Your task to perform on an android device: Open calendar and show me the first week of next month Image 0: 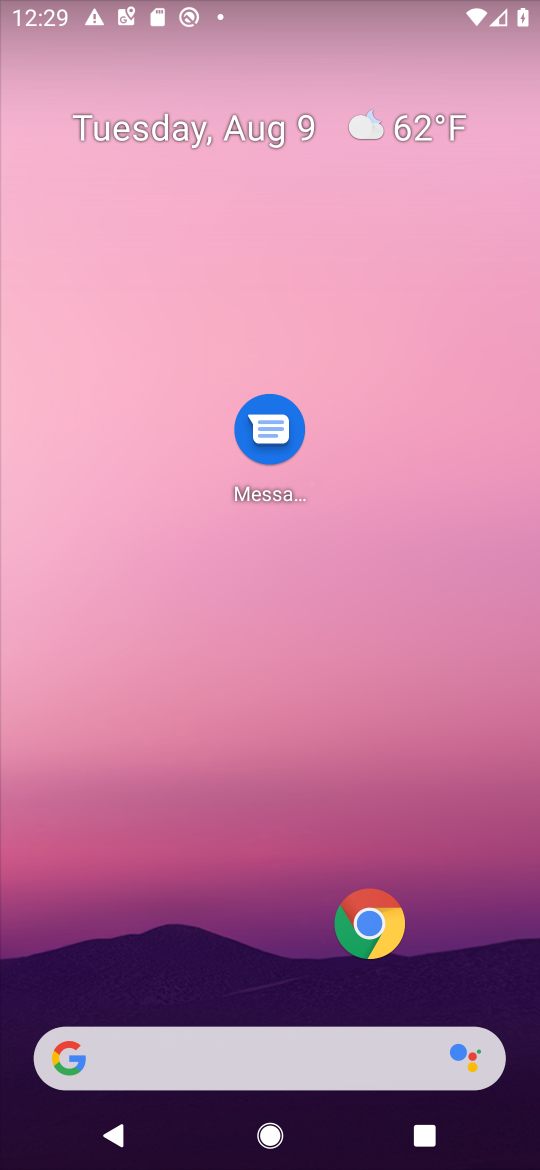
Step 0: click (404, 115)
Your task to perform on an android device: Open calendar and show me the first week of next month Image 1: 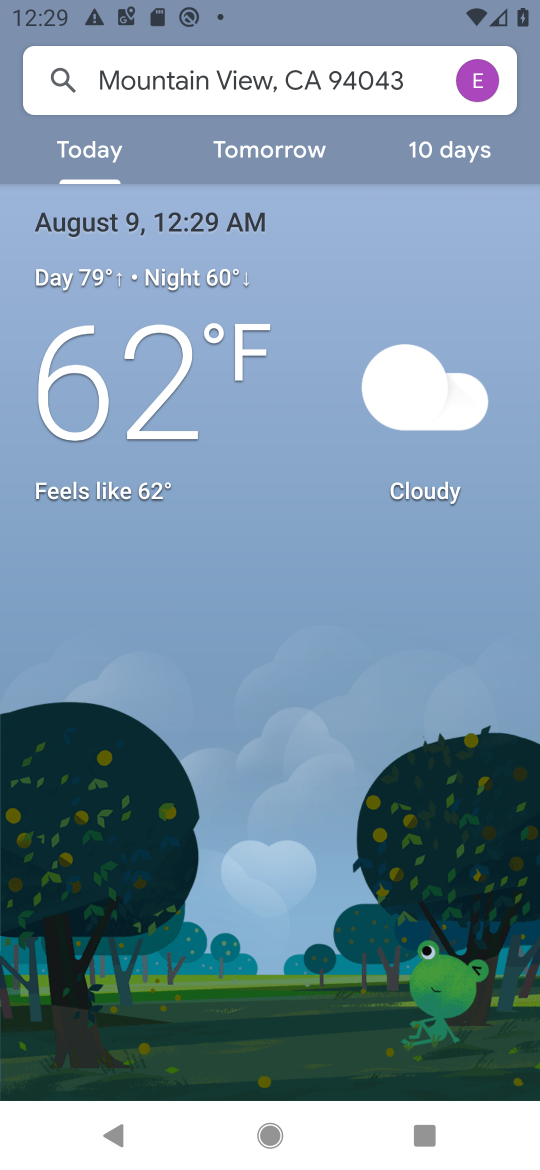
Step 1: press home button
Your task to perform on an android device: Open calendar and show me the first week of next month Image 2: 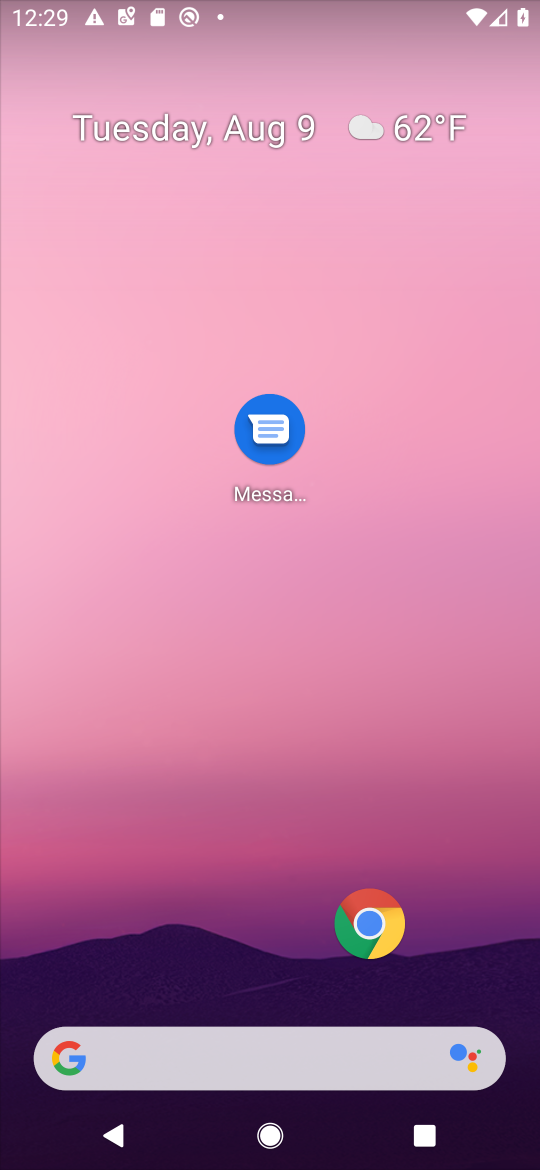
Step 2: drag from (66, 1141) to (532, 231)
Your task to perform on an android device: Open calendar and show me the first week of next month Image 3: 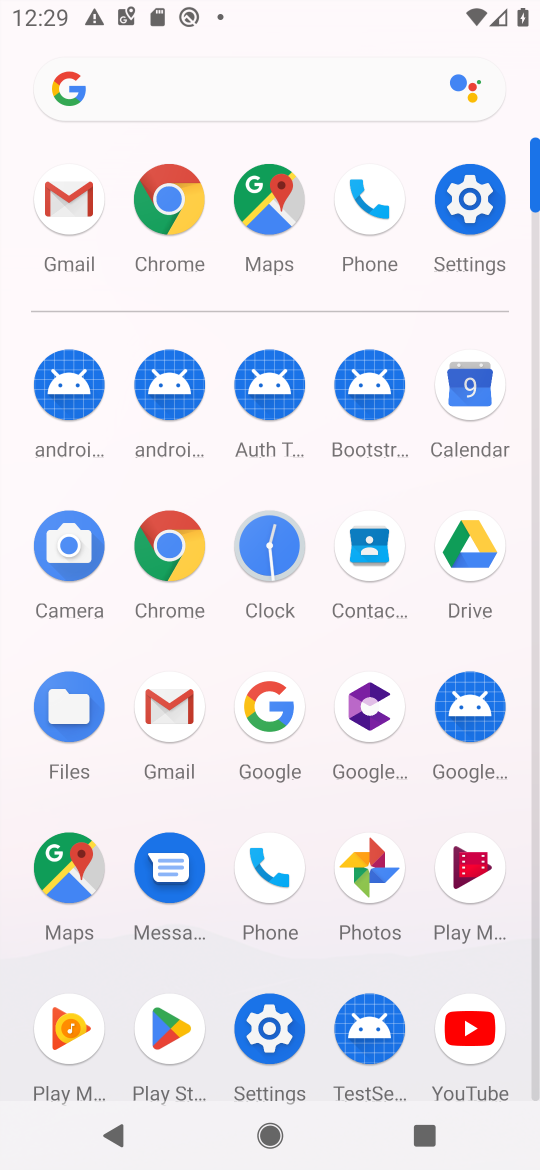
Step 3: click (467, 413)
Your task to perform on an android device: Open calendar and show me the first week of next month Image 4: 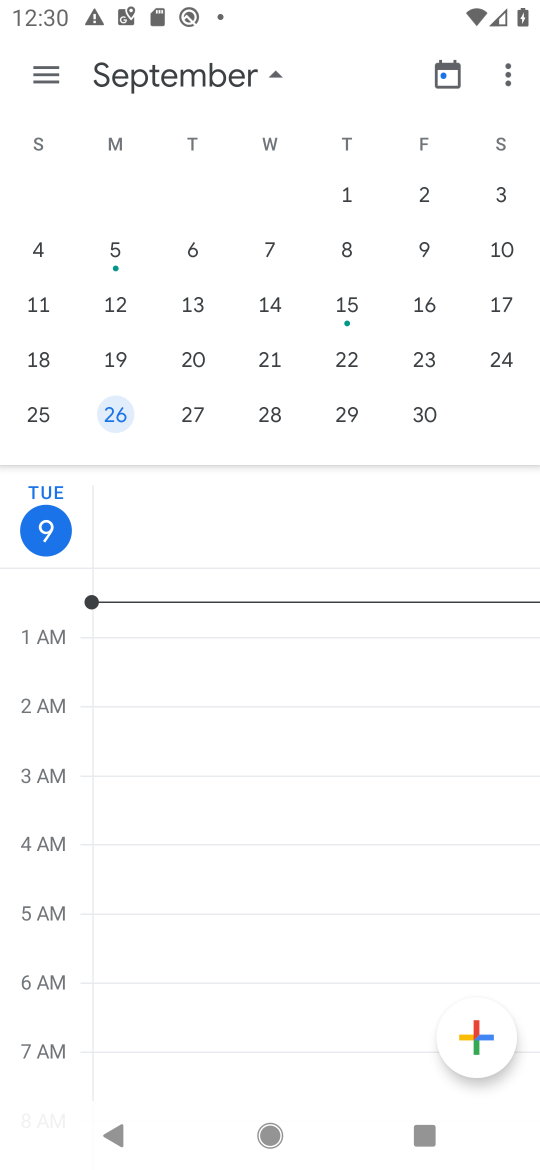
Step 4: click (341, 192)
Your task to perform on an android device: Open calendar and show me the first week of next month Image 5: 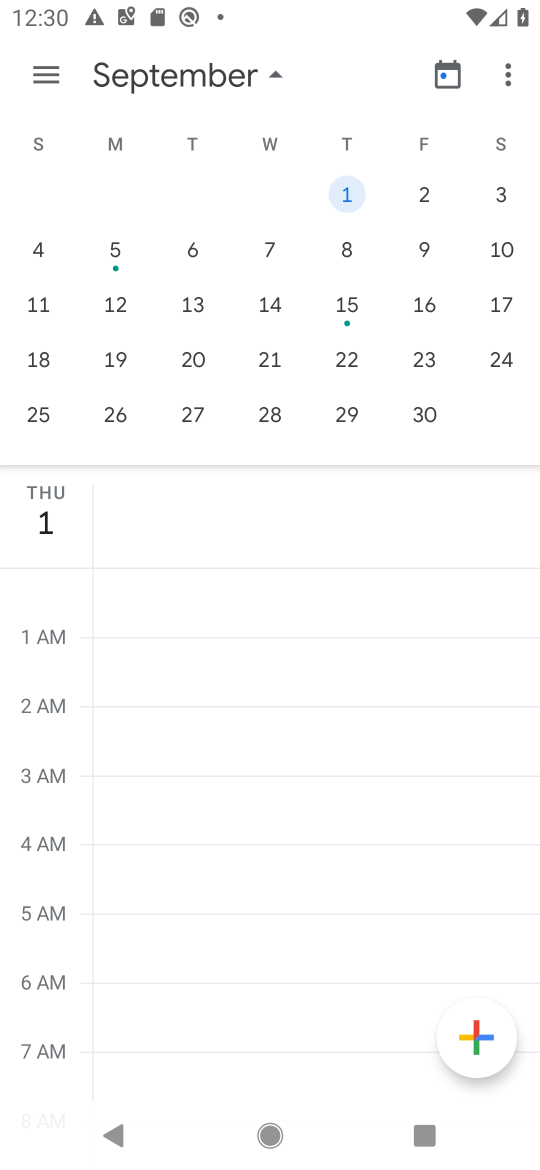
Step 5: task complete